Your task to perform on an android device: What's on my calendar today? Image 0: 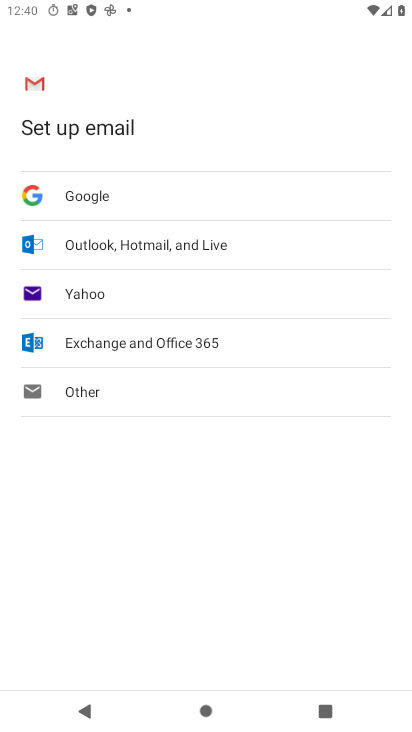
Step 0: press home button
Your task to perform on an android device: What's on my calendar today? Image 1: 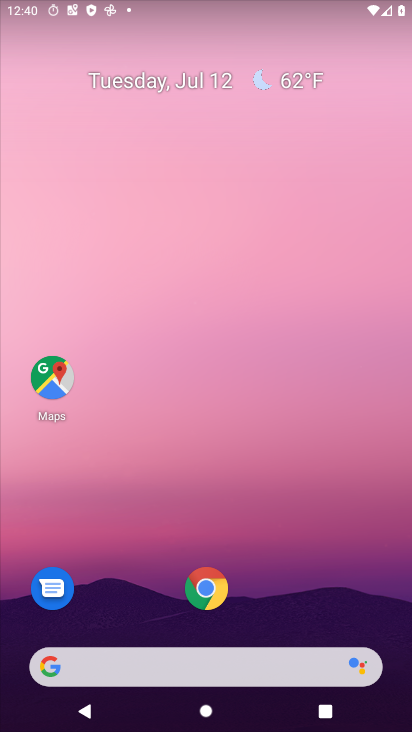
Step 1: drag from (191, 634) to (193, 207)
Your task to perform on an android device: What's on my calendar today? Image 2: 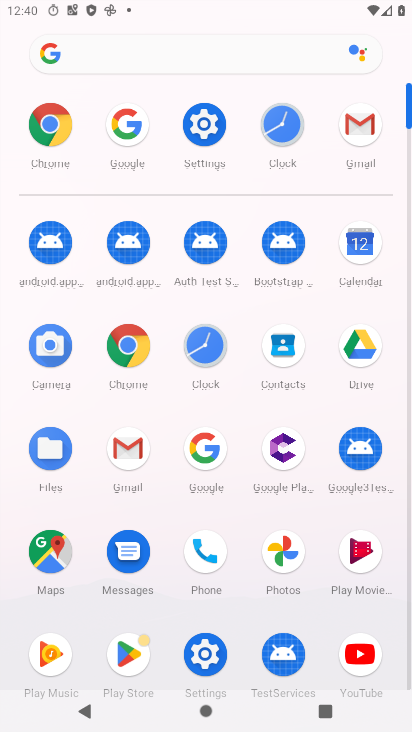
Step 2: click (358, 274)
Your task to perform on an android device: What's on my calendar today? Image 3: 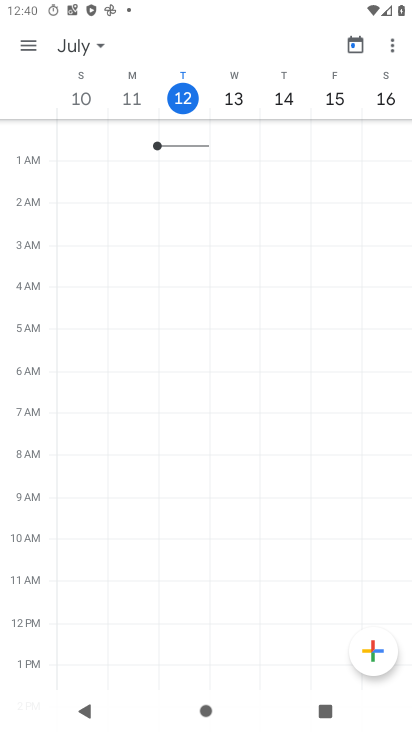
Step 3: task complete